Your task to perform on an android device: toggle notifications settings in the gmail app Image 0: 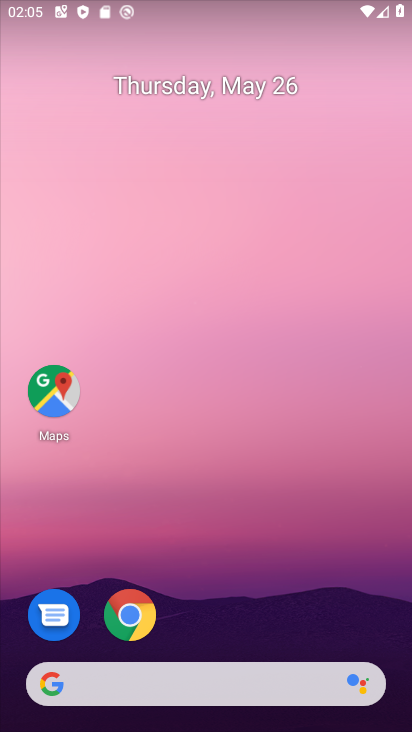
Step 0: click (261, 110)
Your task to perform on an android device: toggle notifications settings in the gmail app Image 1: 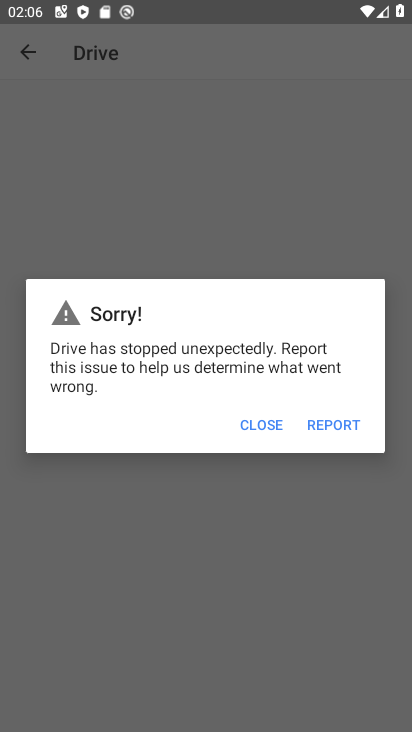
Step 1: press home button
Your task to perform on an android device: toggle notifications settings in the gmail app Image 2: 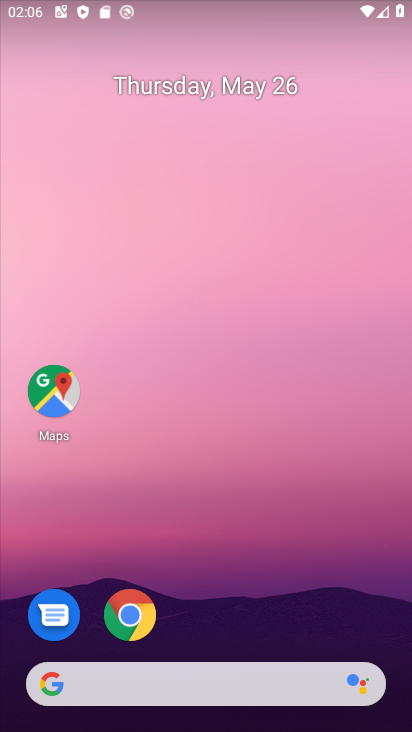
Step 2: drag from (209, 646) to (205, 152)
Your task to perform on an android device: toggle notifications settings in the gmail app Image 3: 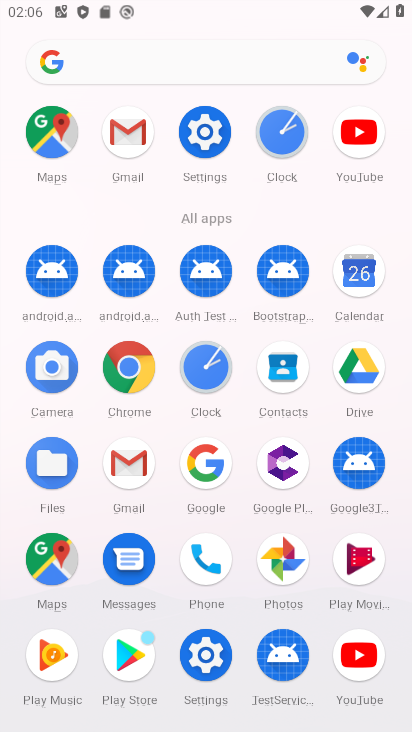
Step 3: click (123, 133)
Your task to perform on an android device: toggle notifications settings in the gmail app Image 4: 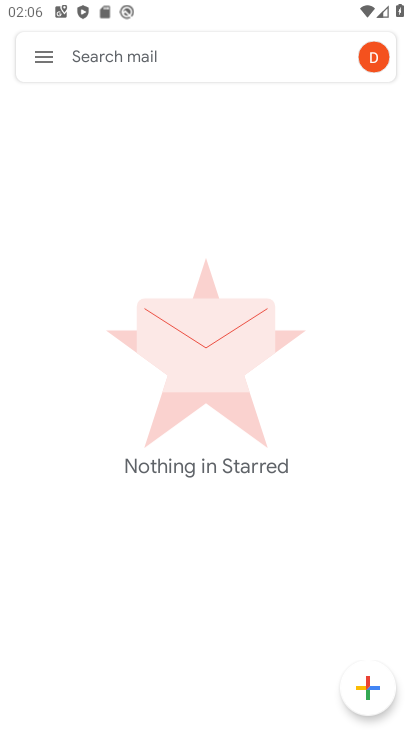
Step 4: click (41, 47)
Your task to perform on an android device: toggle notifications settings in the gmail app Image 5: 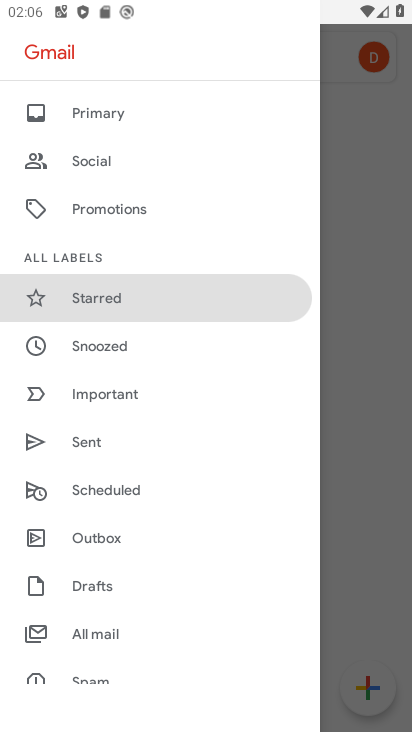
Step 5: drag from (143, 629) to (195, 105)
Your task to perform on an android device: toggle notifications settings in the gmail app Image 6: 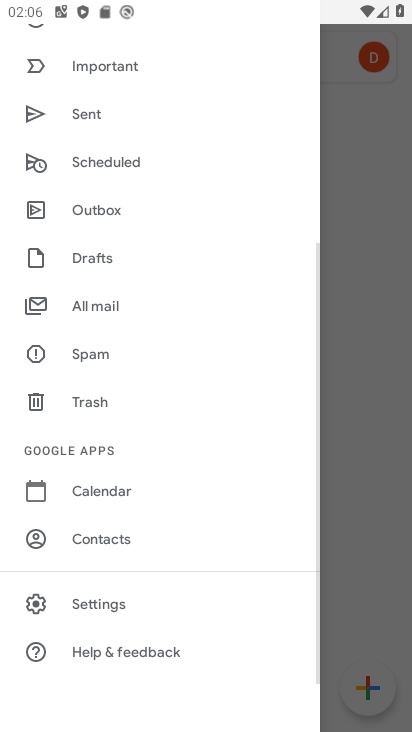
Step 6: click (132, 600)
Your task to perform on an android device: toggle notifications settings in the gmail app Image 7: 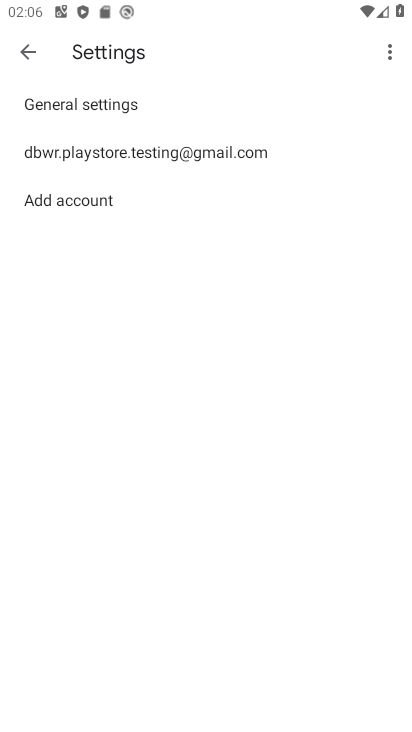
Step 7: click (145, 101)
Your task to perform on an android device: toggle notifications settings in the gmail app Image 8: 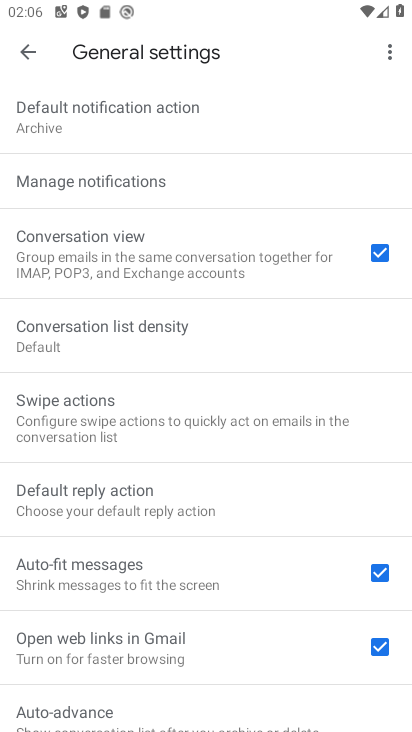
Step 8: click (174, 169)
Your task to perform on an android device: toggle notifications settings in the gmail app Image 9: 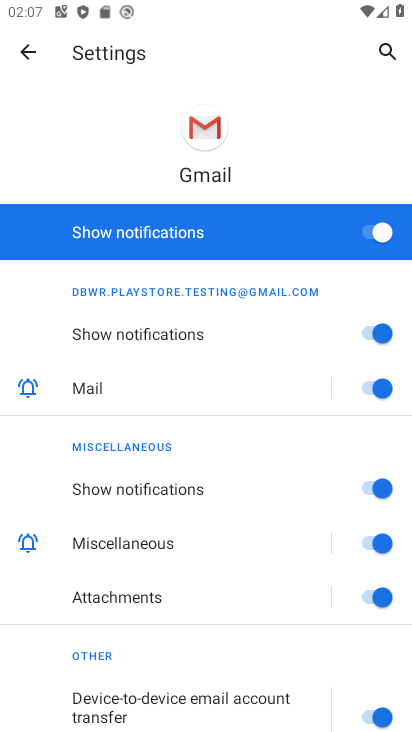
Step 9: click (374, 231)
Your task to perform on an android device: toggle notifications settings in the gmail app Image 10: 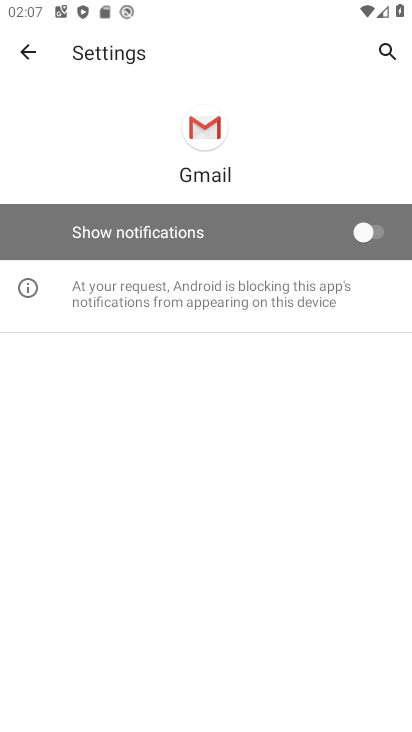
Step 10: task complete